Your task to perform on an android device: What's the weather going to be tomorrow? Image 0: 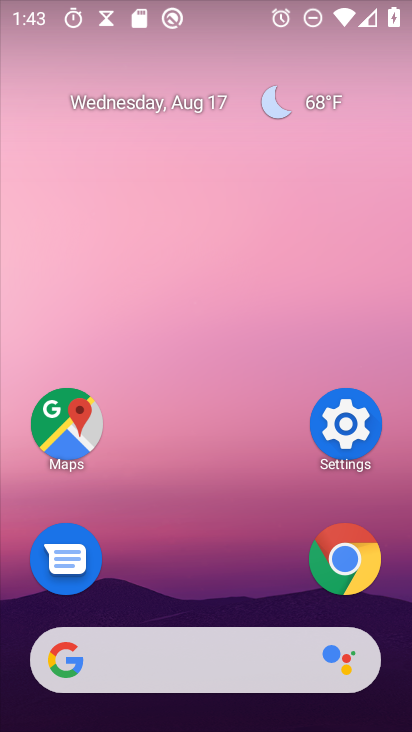
Step 0: click (319, 100)
Your task to perform on an android device: What's the weather going to be tomorrow? Image 1: 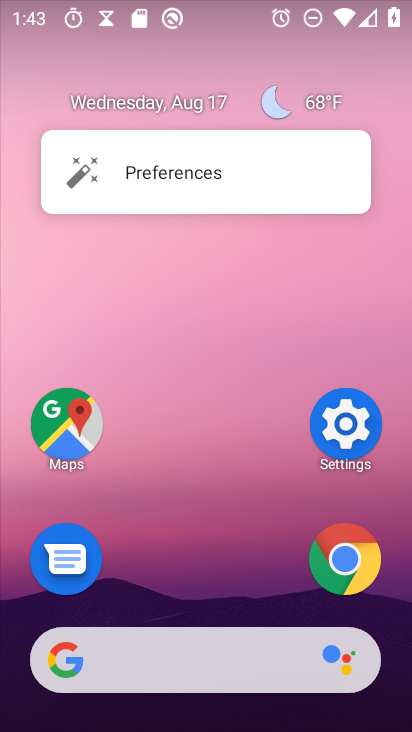
Step 1: click (311, 101)
Your task to perform on an android device: What's the weather going to be tomorrow? Image 2: 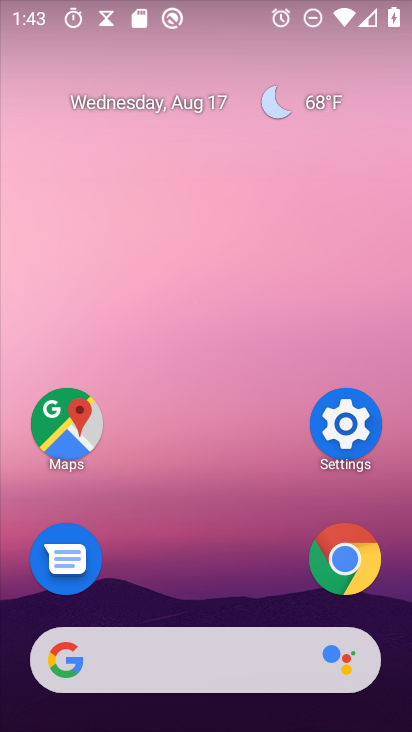
Step 2: click (318, 99)
Your task to perform on an android device: What's the weather going to be tomorrow? Image 3: 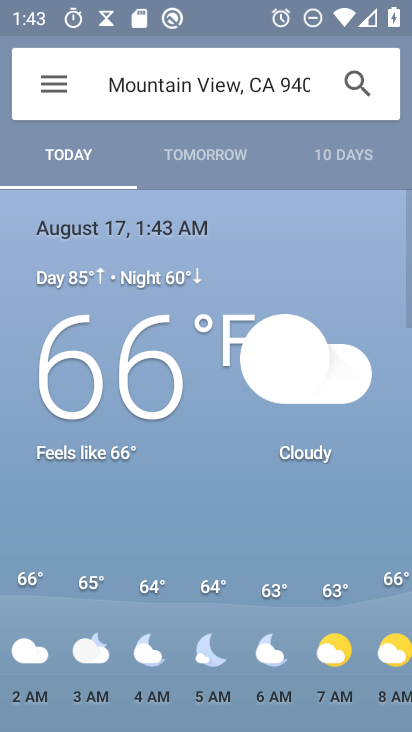
Step 3: click (212, 146)
Your task to perform on an android device: What's the weather going to be tomorrow? Image 4: 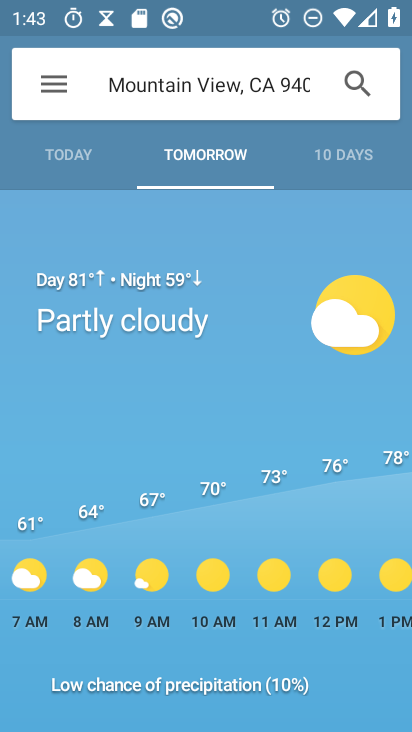
Step 4: task complete